Your task to perform on an android device: Go to eBay Image 0: 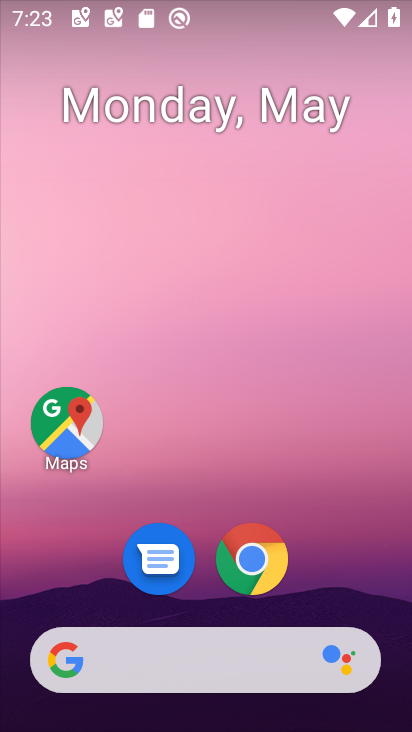
Step 0: drag from (385, 636) to (324, 161)
Your task to perform on an android device: Go to eBay Image 1: 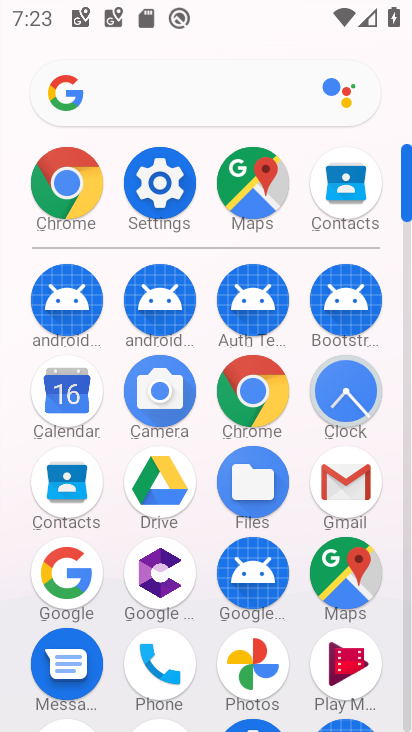
Step 1: click (264, 400)
Your task to perform on an android device: Go to eBay Image 2: 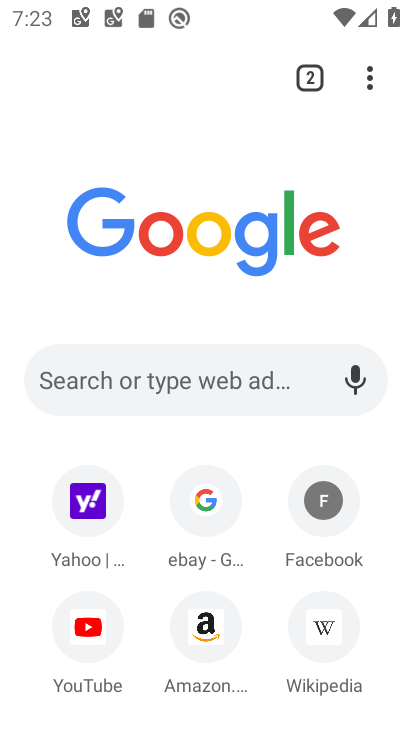
Step 2: click (190, 363)
Your task to perform on an android device: Go to eBay Image 3: 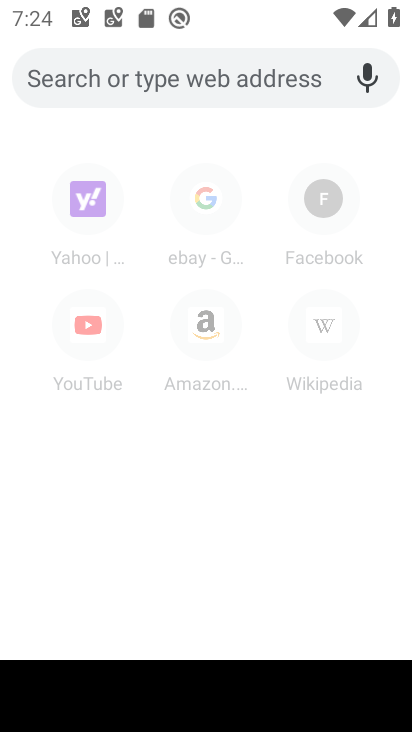
Step 3: type "ebay"
Your task to perform on an android device: Go to eBay Image 4: 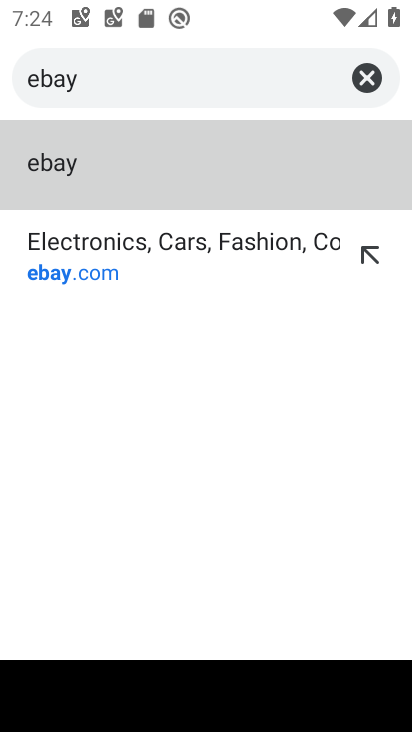
Step 4: click (177, 172)
Your task to perform on an android device: Go to eBay Image 5: 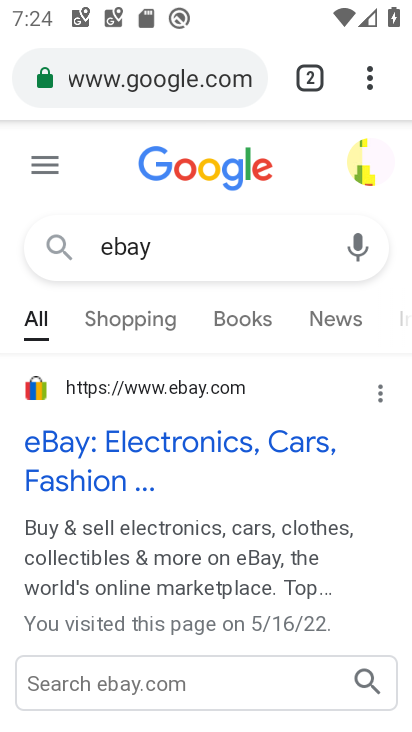
Step 5: task complete